Your task to perform on an android device: change text size in settings app Image 0: 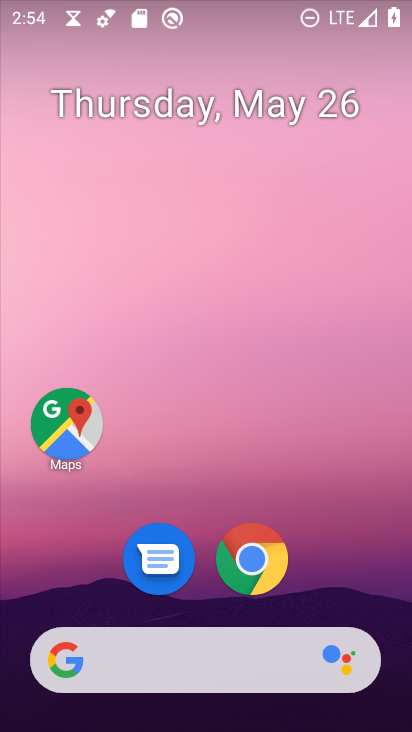
Step 0: drag from (236, 642) to (359, 228)
Your task to perform on an android device: change text size in settings app Image 1: 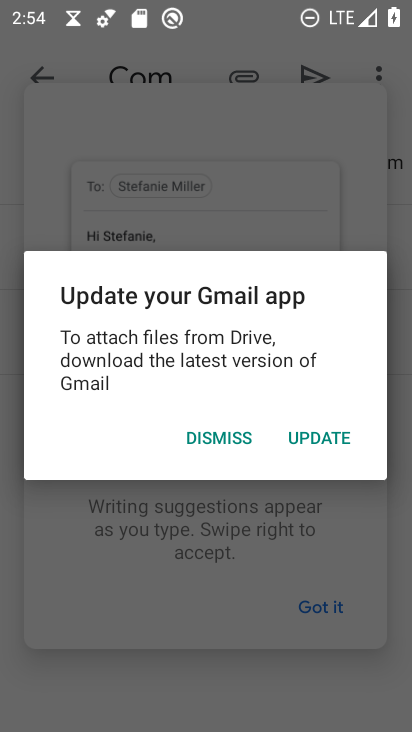
Step 1: press home button
Your task to perform on an android device: change text size in settings app Image 2: 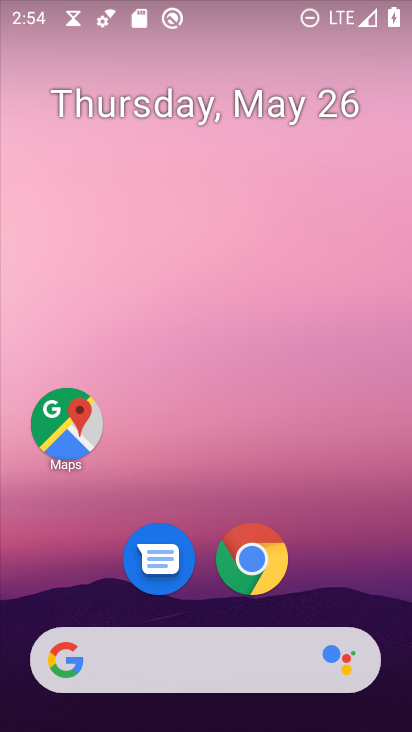
Step 2: drag from (218, 659) to (349, 149)
Your task to perform on an android device: change text size in settings app Image 3: 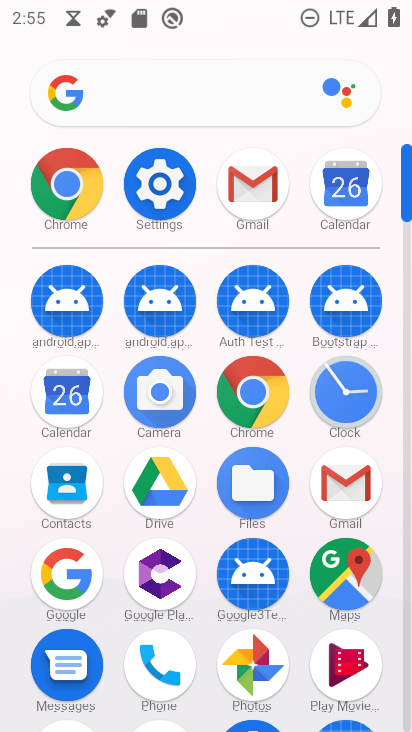
Step 3: click (165, 197)
Your task to perform on an android device: change text size in settings app Image 4: 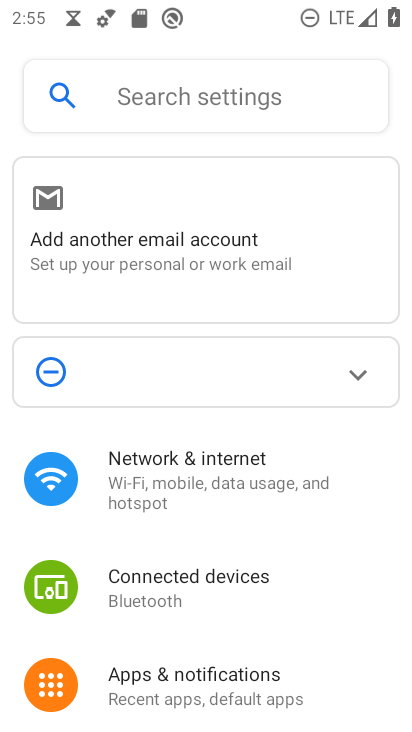
Step 4: drag from (318, 564) to (367, 161)
Your task to perform on an android device: change text size in settings app Image 5: 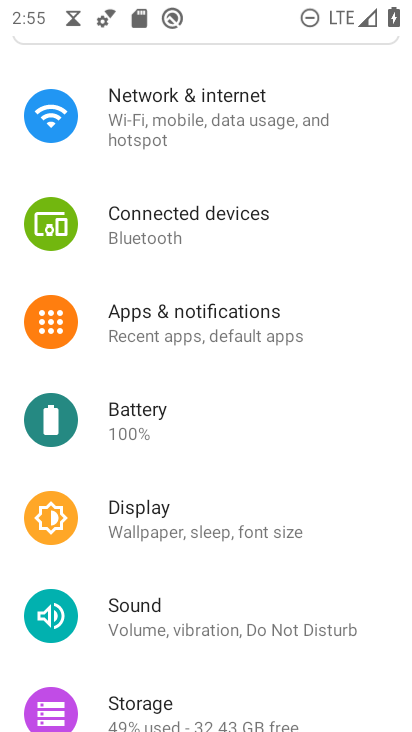
Step 5: click (228, 537)
Your task to perform on an android device: change text size in settings app Image 6: 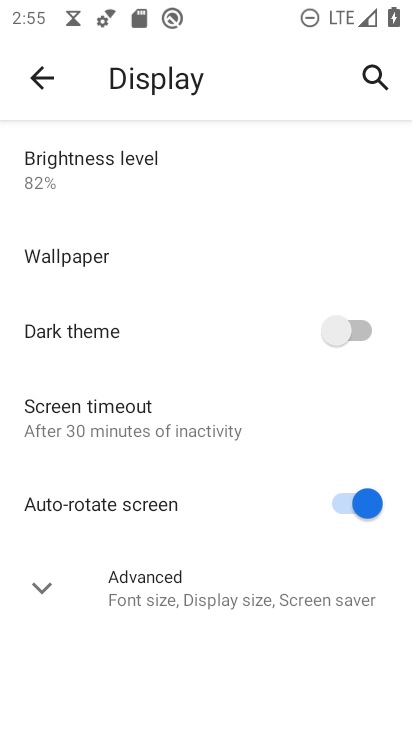
Step 6: click (222, 614)
Your task to perform on an android device: change text size in settings app Image 7: 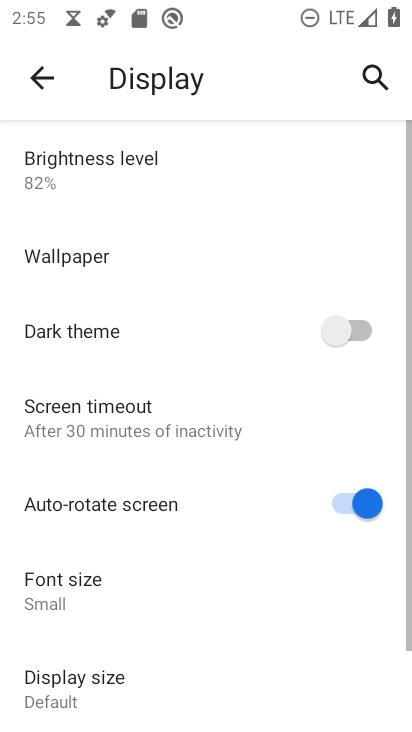
Step 7: drag from (247, 663) to (344, 339)
Your task to perform on an android device: change text size in settings app Image 8: 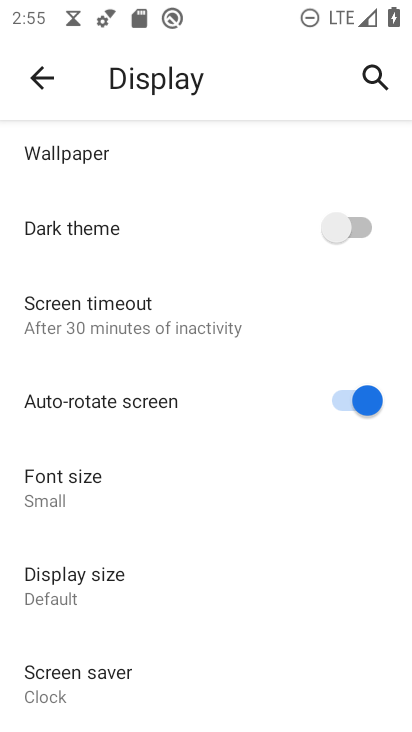
Step 8: click (68, 487)
Your task to perform on an android device: change text size in settings app Image 9: 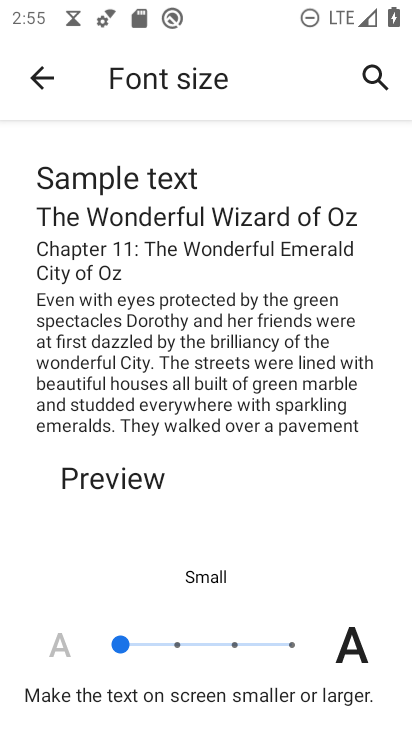
Step 9: click (177, 639)
Your task to perform on an android device: change text size in settings app Image 10: 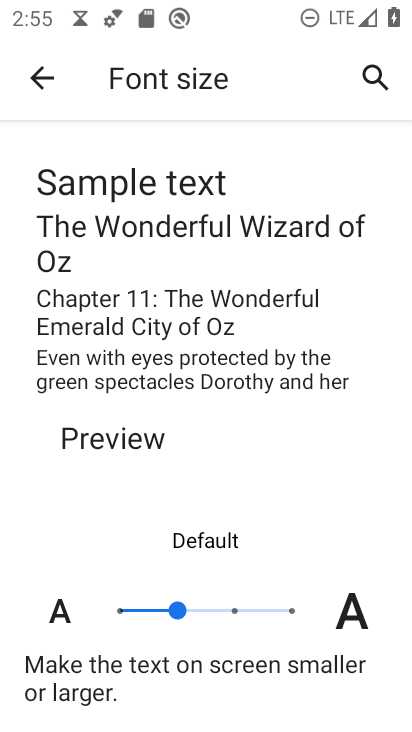
Step 10: task complete